Your task to perform on an android device: Go to notification settings Image 0: 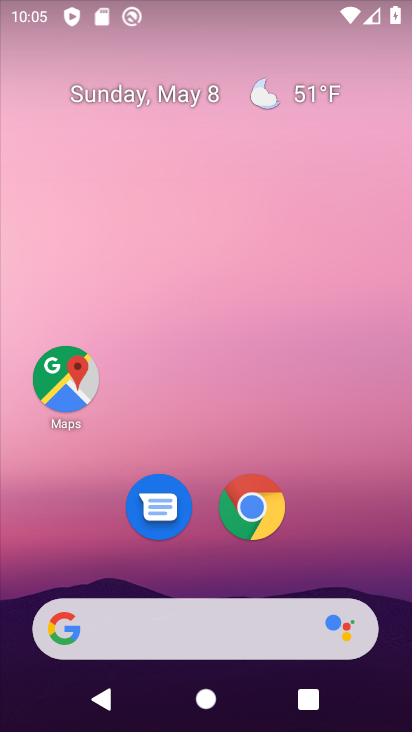
Step 0: press home button
Your task to perform on an android device: Go to notification settings Image 1: 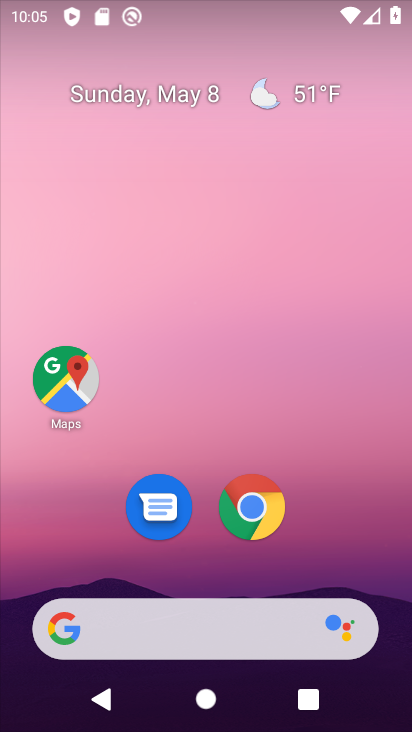
Step 1: drag from (196, 574) to (187, 70)
Your task to perform on an android device: Go to notification settings Image 2: 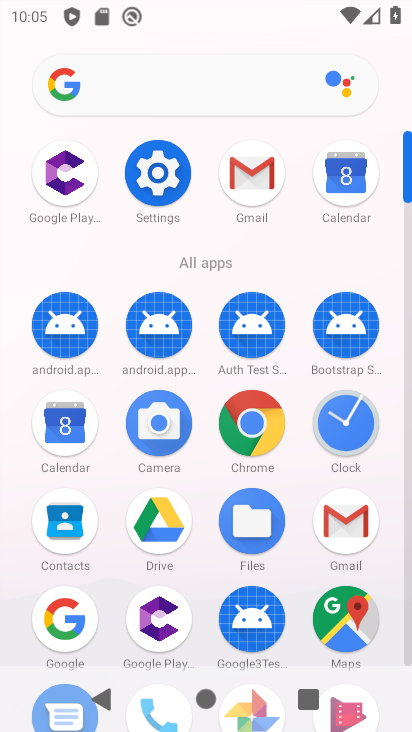
Step 2: click (154, 168)
Your task to perform on an android device: Go to notification settings Image 3: 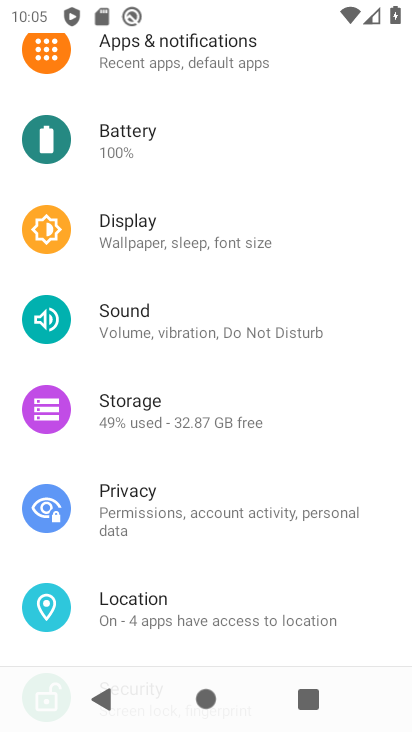
Step 3: click (140, 67)
Your task to perform on an android device: Go to notification settings Image 4: 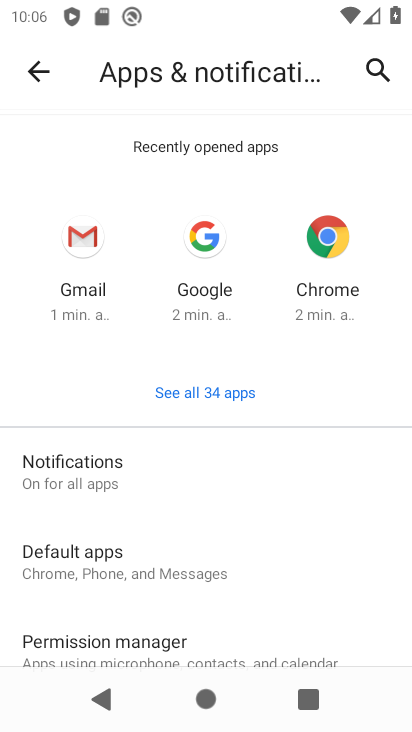
Step 4: click (141, 462)
Your task to perform on an android device: Go to notification settings Image 5: 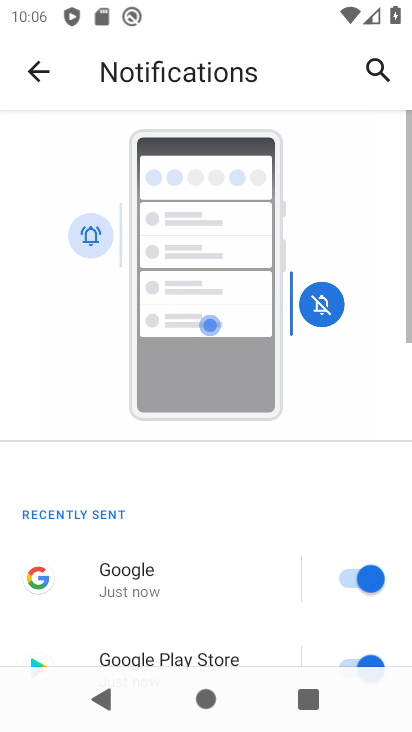
Step 5: drag from (200, 567) to (199, 133)
Your task to perform on an android device: Go to notification settings Image 6: 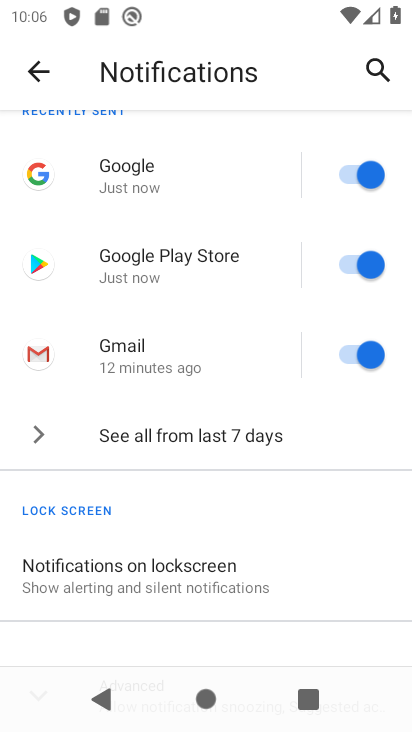
Step 6: click (334, 171)
Your task to perform on an android device: Go to notification settings Image 7: 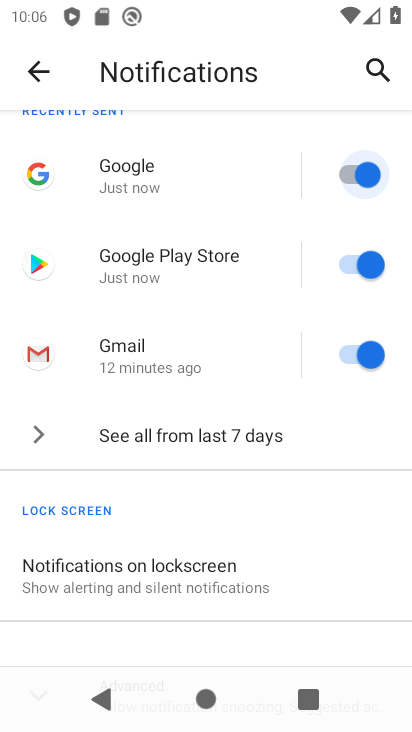
Step 7: click (363, 283)
Your task to perform on an android device: Go to notification settings Image 8: 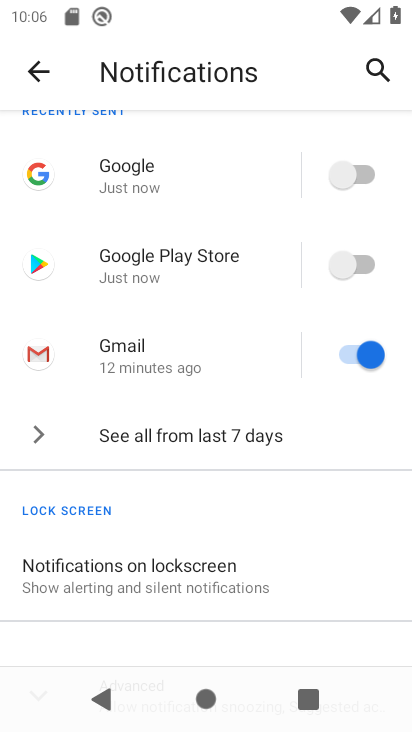
Step 8: click (351, 341)
Your task to perform on an android device: Go to notification settings Image 9: 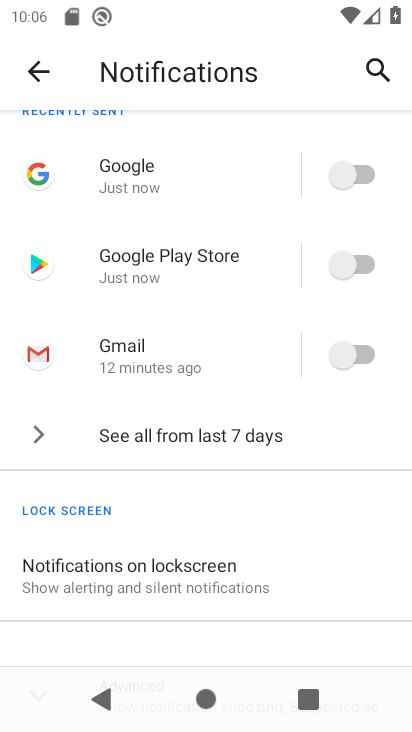
Step 9: task complete